Your task to perform on an android device: delete browsing data in the chrome app Image 0: 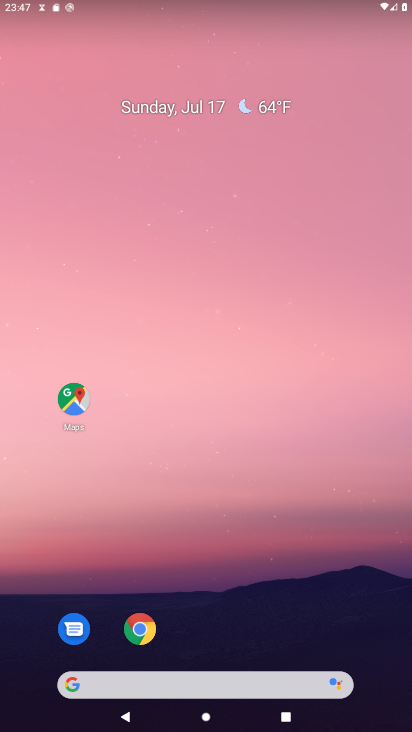
Step 0: drag from (275, 645) to (265, 310)
Your task to perform on an android device: delete browsing data in the chrome app Image 1: 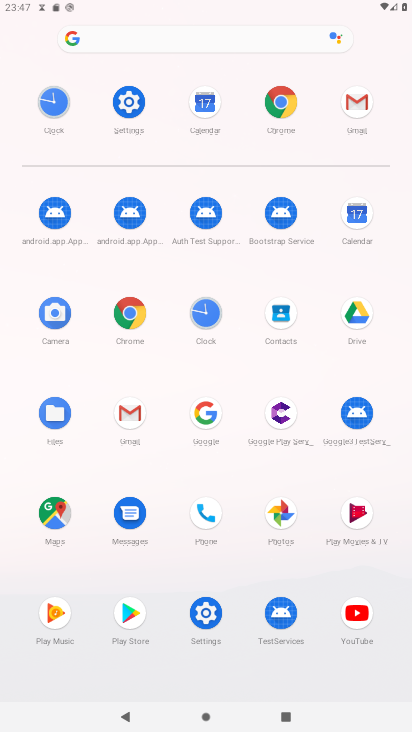
Step 1: click (286, 99)
Your task to perform on an android device: delete browsing data in the chrome app Image 2: 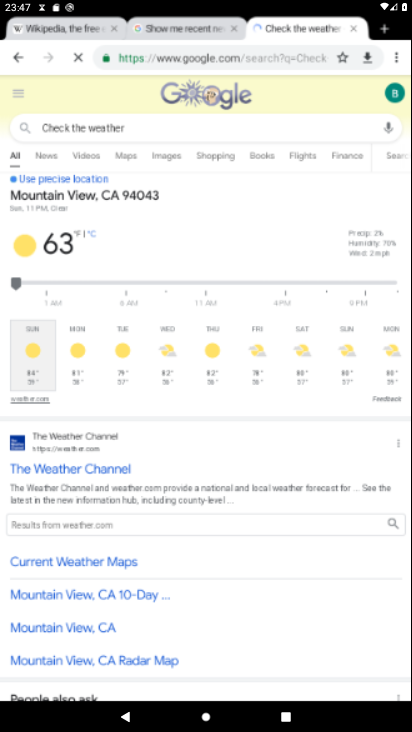
Step 2: click (398, 54)
Your task to perform on an android device: delete browsing data in the chrome app Image 3: 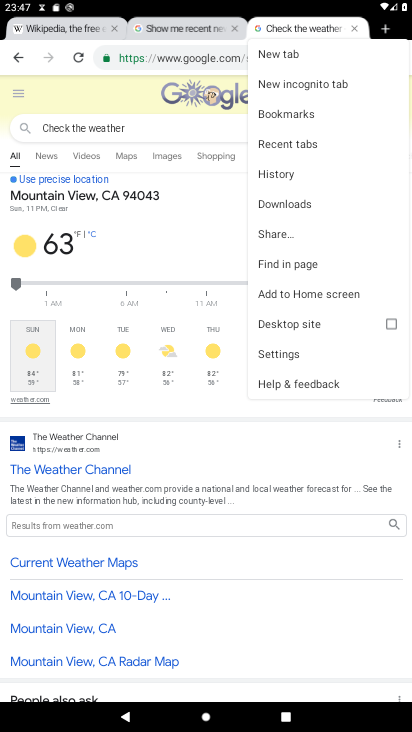
Step 3: click (302, 352)
Your task to perform on an android device: delete browsing data in the chrome app Image 4: 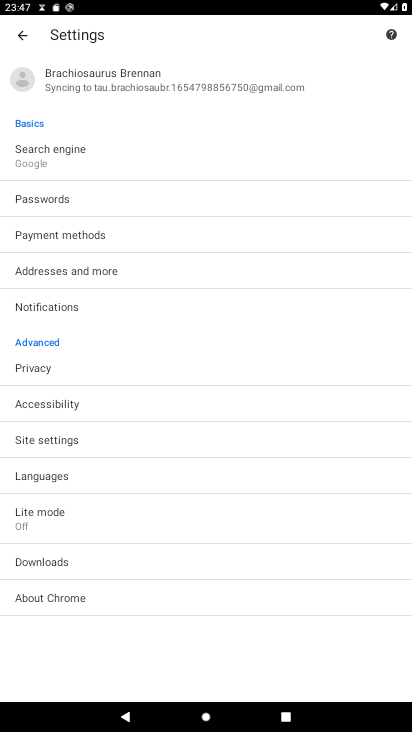
Step 4: click (66, 439)
Your task to perform on an android device: delete browsing data in the chrome app Image 5: 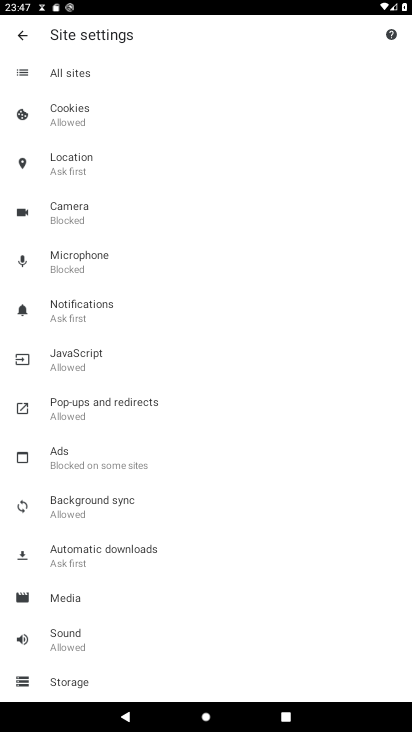
Step 5: click (13, 20)
Your task to perform on an android device: delete browsing data in the chrome app Image 6: 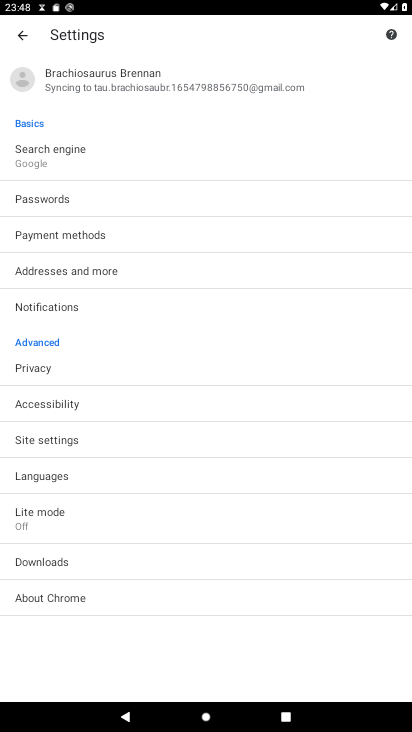
Step 6: click (67, 369)
Your task to perform on an android device: delete browsing data in the chrome app Image 7: 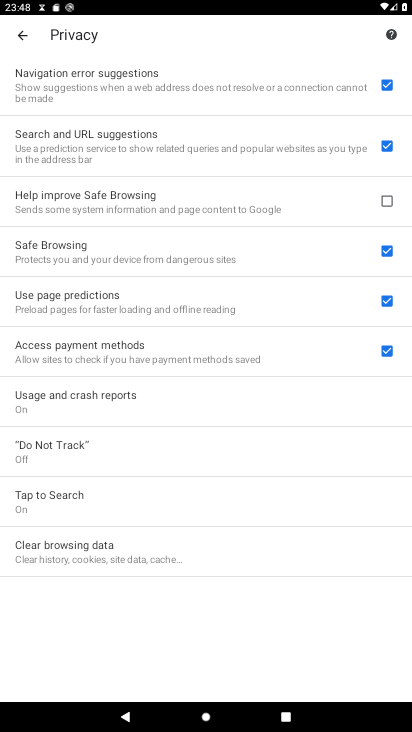
Step 7: click (128, 557)
Your task to perform on an android device: delete browsing data in the chrome app Image 8: 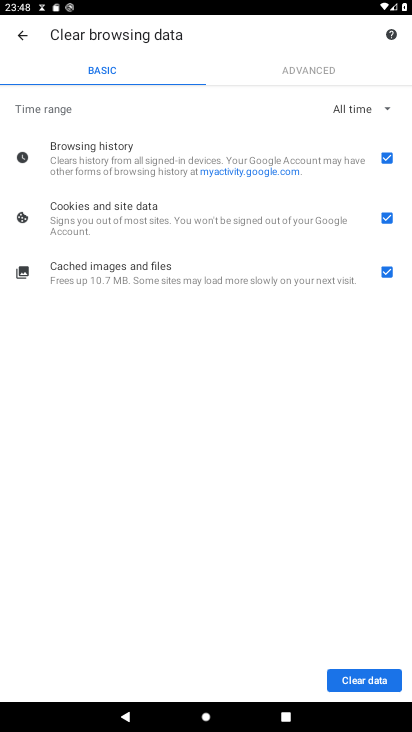
Step 8: click (368, 672)
Your task to perform on an android device: delete browsing data in the chrome app Image 9: 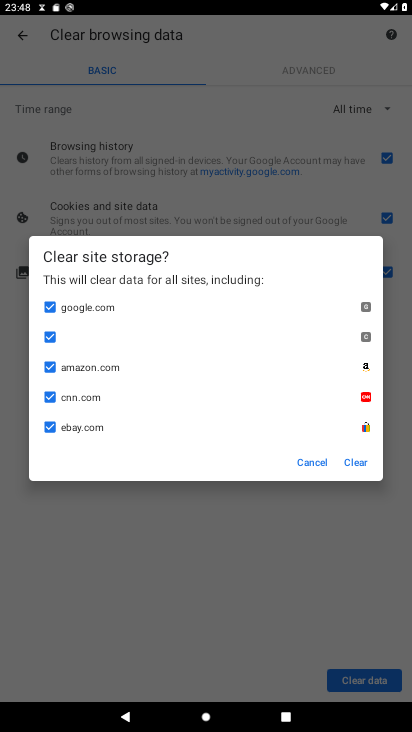
Step 9: click (365, 454)
Your task to perform on an android device: delete browsing data in the chrome app Image 10: 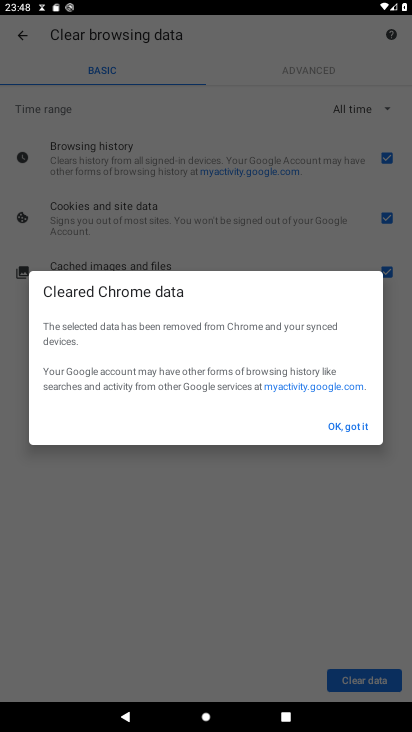
Step 10: click (355, 421)
Your task to perform on an android device: delete browsing data in the chrome app Image 11: 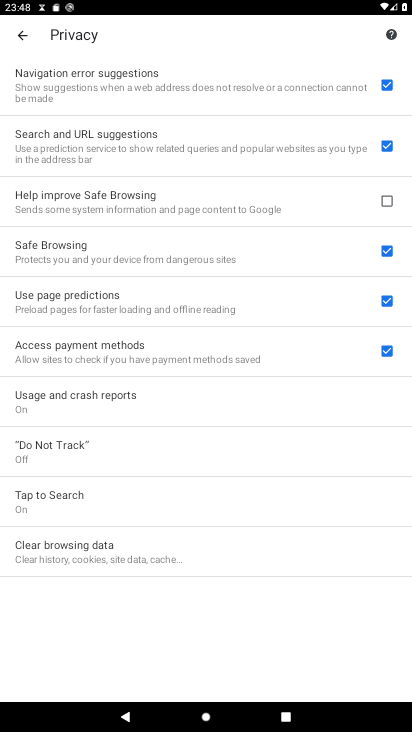
Step 11: task complete